Your task to perform on an android device: add a contact in the contacts app Image 0: 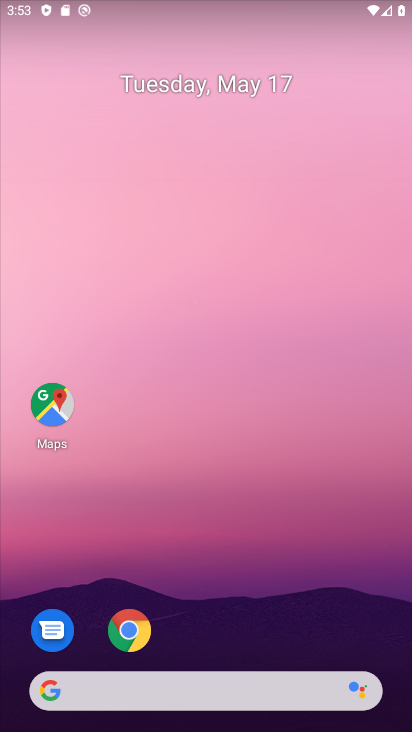
Step 0: drag from (230, 722) to (224, 5)
Your task to perform on an android device: add a contact in the contacts app Image 1: 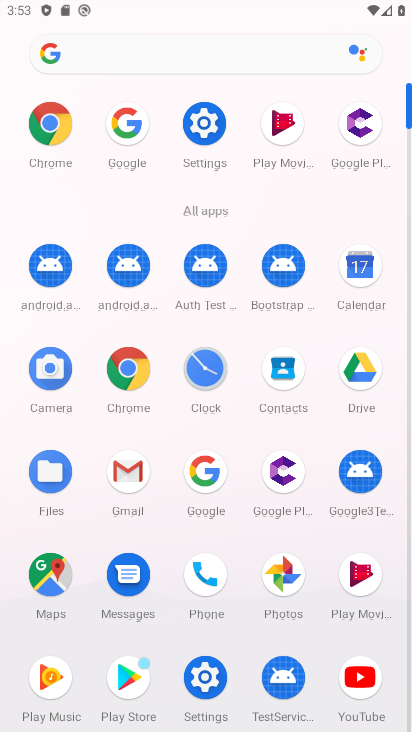
Step 1: click (280, 367)
Your task to perform on an android device: add a contact in the contacts app Image 2: 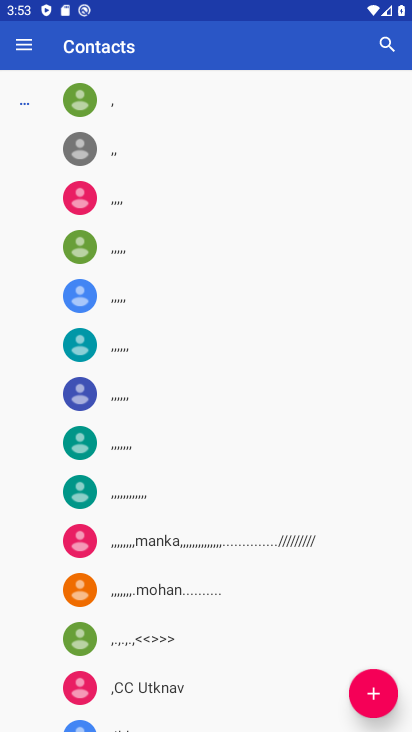
Step 2: click (368, 695)
Your task to perform on an android device: add a contact in the contacts app Image 3: 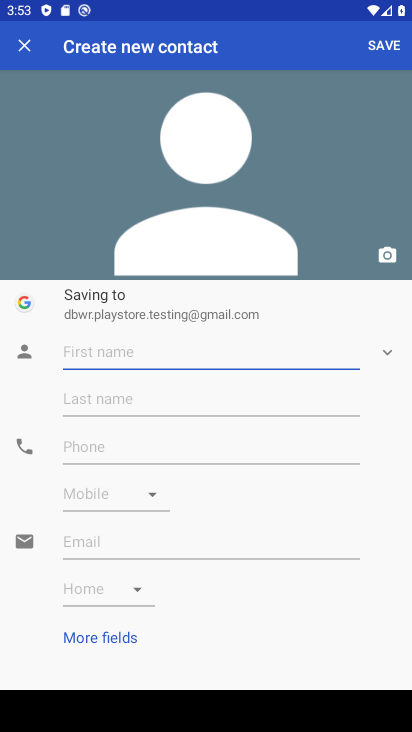
Step 3: type "nnnmnmn"
Your task to perform on an android device: add a contact in the contacts app Image 4: 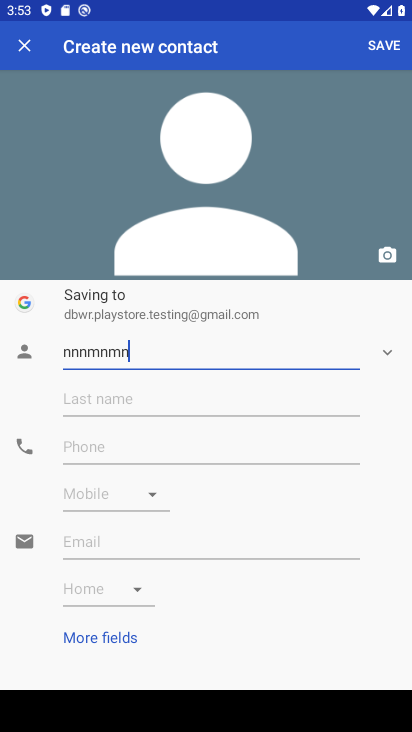
Step 4: type ""
Your task to perform on an android device: add a contact in the contacts app Image 5: 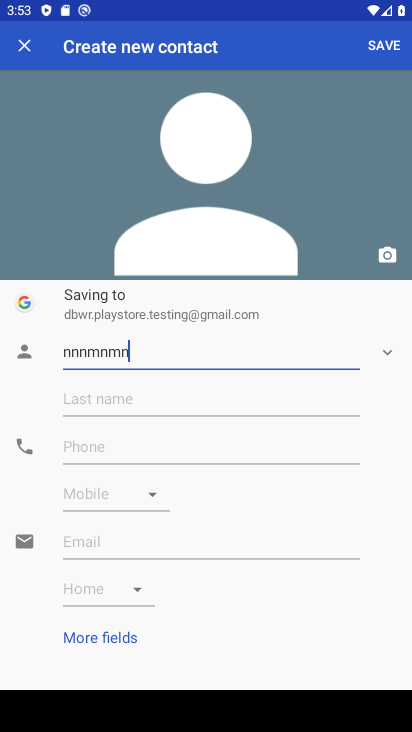
Step 5: click (110, 447)
Your task to perform on an android device: add a contact in the contacts app Image 6: 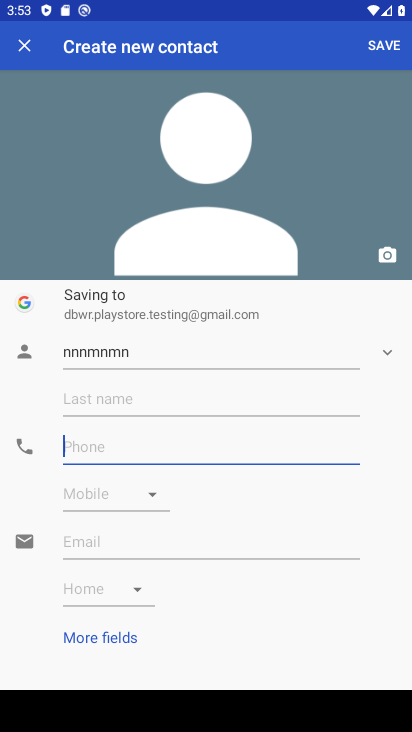
Step 6: type "89876"
Your task to perform on an android device: add a contact in the contacts app Image 7: 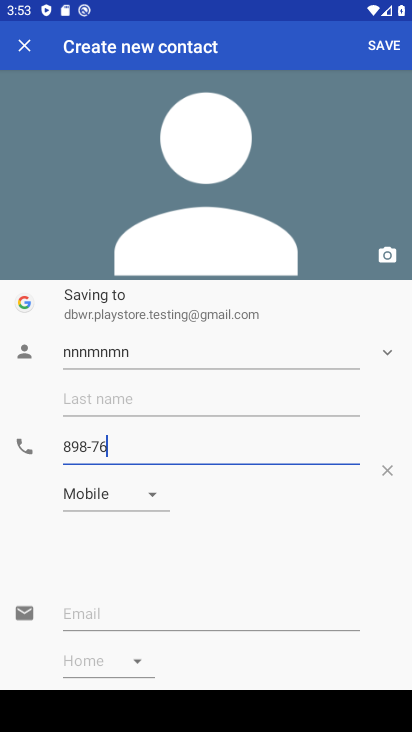
Step 7: type ""
Your task to perform on an android device: add a contact in the contacts app Image 8: 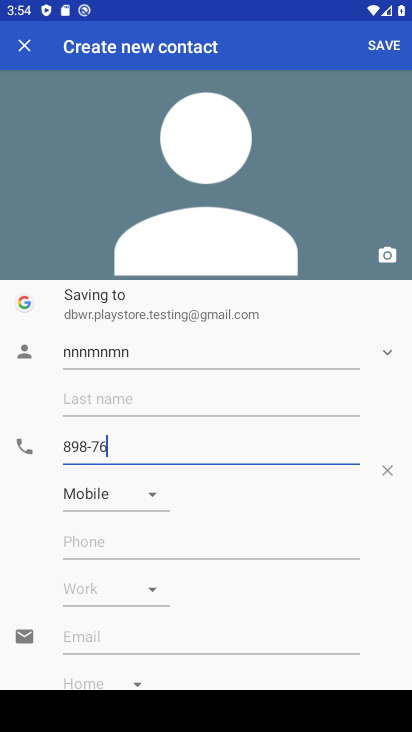
Step 8: click (382, 49)
Your task to perform on an android device: add a contact in the contacts app Image 9: 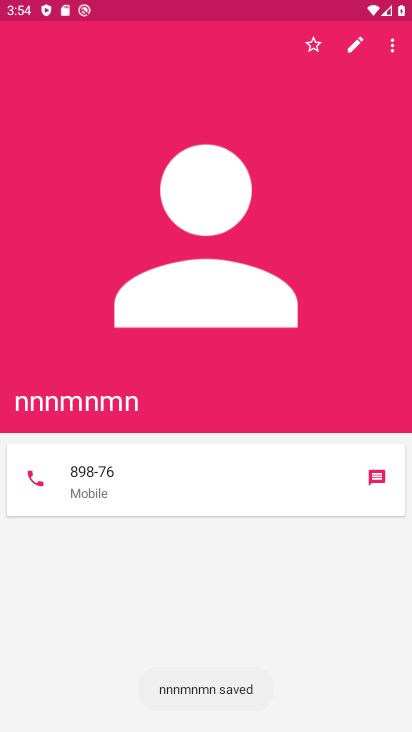
Step 9: task complete